Your task to perform on an android device: turn off picture-in-picture Image 0: 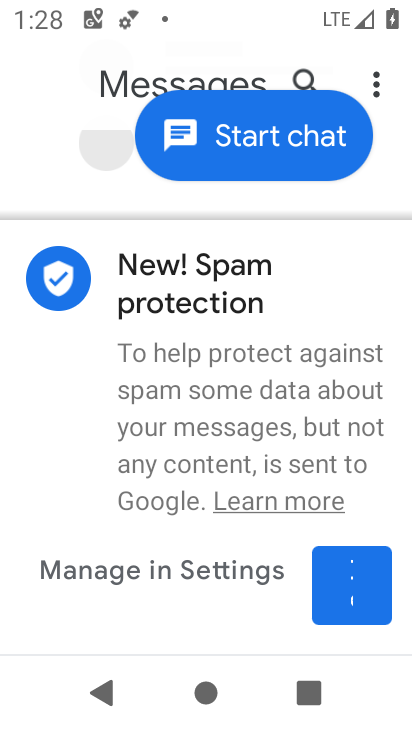
Step 0: press home button
Your task to perform on an android device: turn off picture-in-picture Image 1: 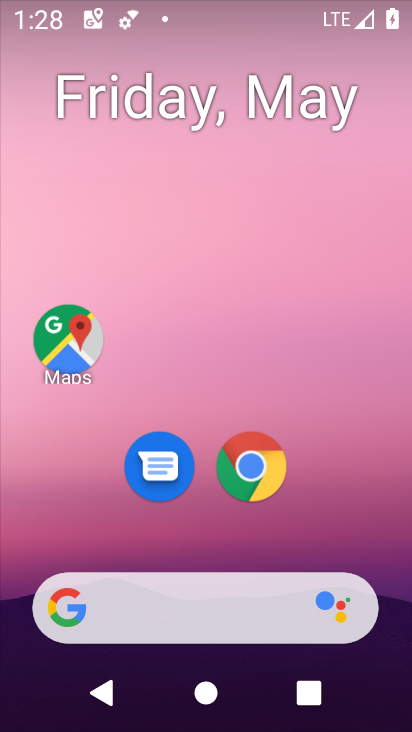
Step 1: drag from (316, 510) to (385, 0)
Your task to perform on an android device: turn off picture-in-picture Image 2: 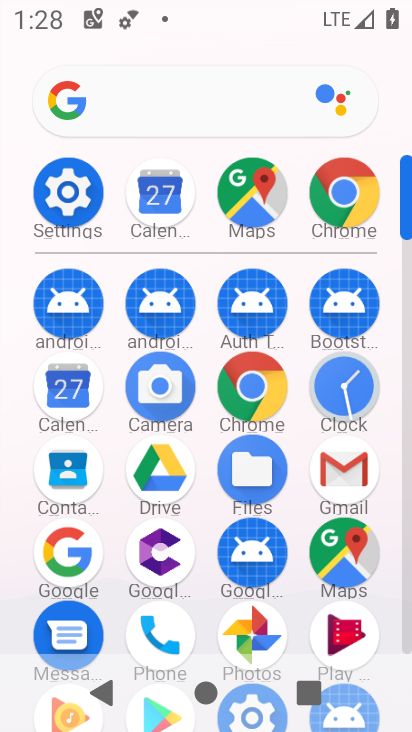
Step 2: click (343, 200)
Your task to perform on an android device: turn off picture-in-picture Image 3: 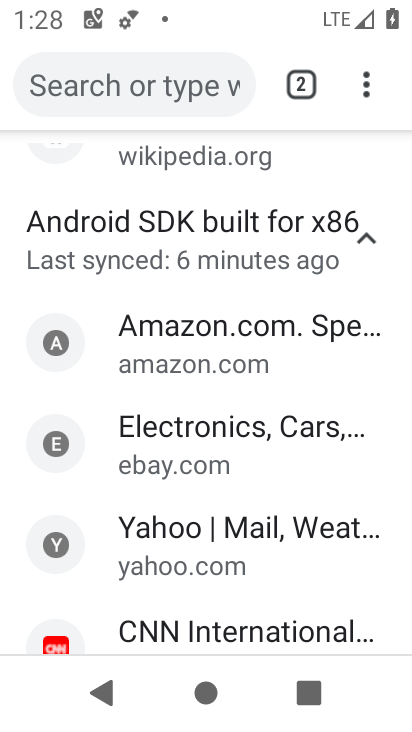
Step 3: press home button
Your task to perform on an android device: turn off picture-in-picture Image 4: 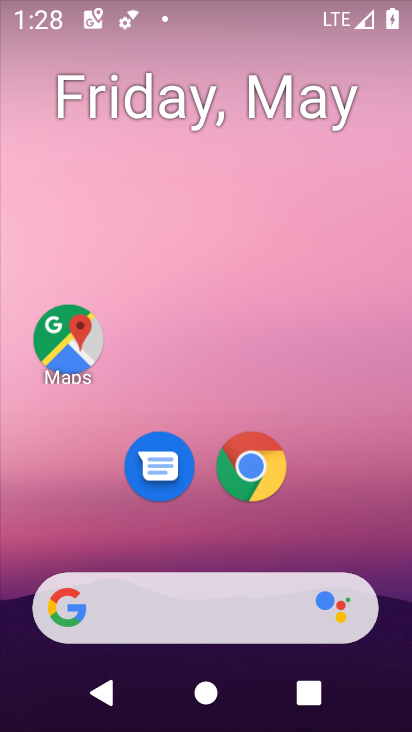
Step 4: click (249, 459)
Your task to perform on an android device: turn off picture-in-picture Image 5: 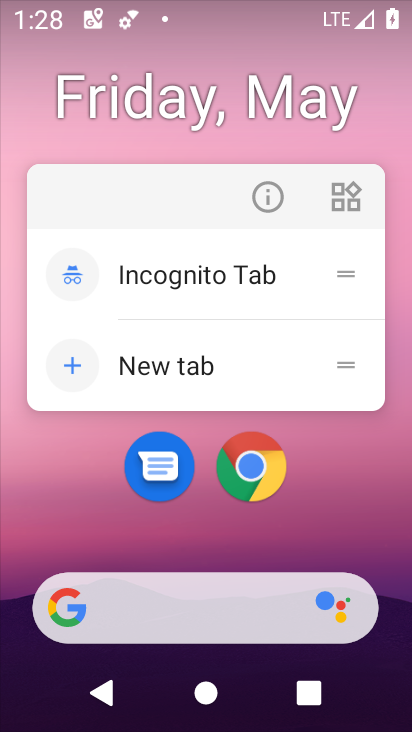
Step 5: click (271, 197)
Your task to perform on an android device: turn off picture-in-picture Image 6: 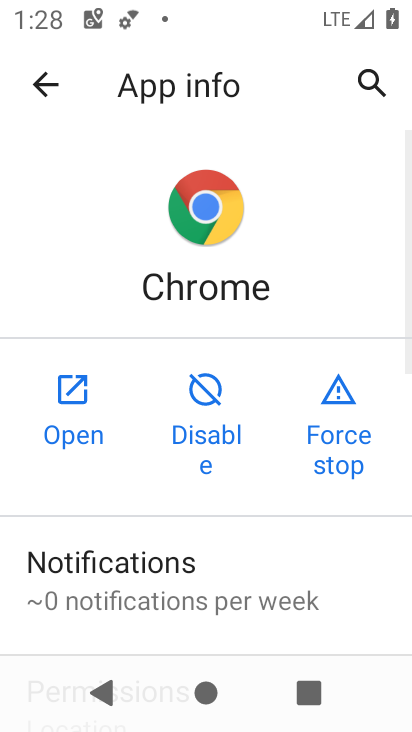
Step 6: drag from (261, 560) to (353, 101)
Your task to perform on an android device: turn off picture-in-picture Image 7: 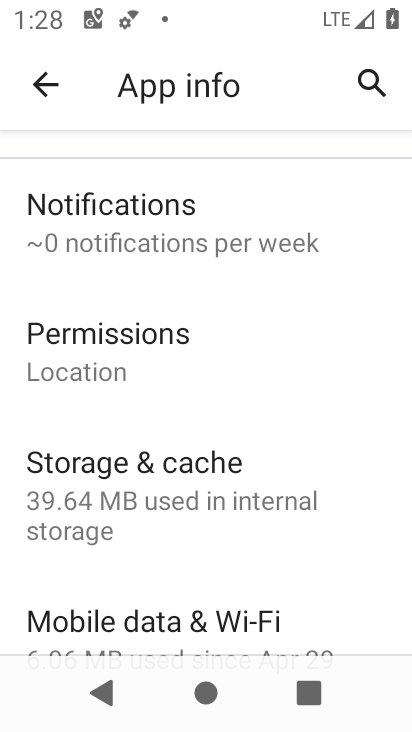
Step 7: drag from (245, 558) to (291, 113)
Your task to perform on an android device: turn off picture-in-picture Image 8: 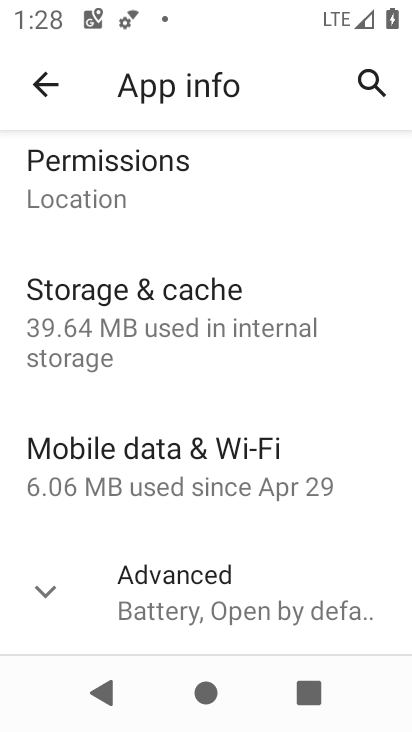
Step 8: click (179, 588)
Your task to perform on an android device: turn off picture-in-picture Image 9: 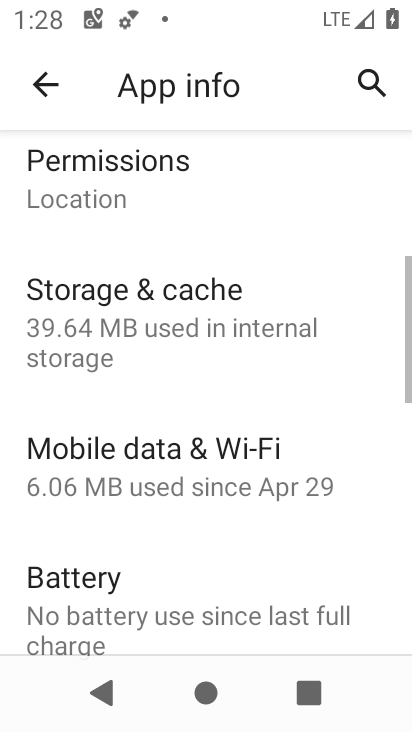
Step 9: drag from (172, 581) to (227, 157)
Your task to perform on an android device: turn off picture-in-picture Image 10: 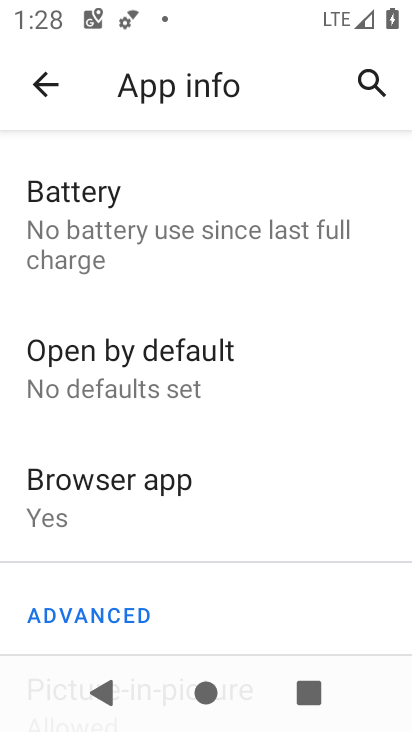
Step 10: drag from (247, 511) to (245, 72)
Your task to perform on an android device: turn off picture-in-picture Image 11: 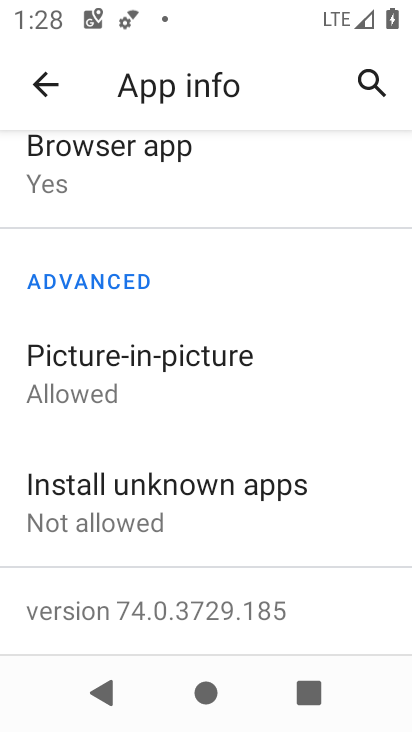
Step 11: click (84, 385)
Your task to perform on an android device: turn off picture-in-picture Image 12: 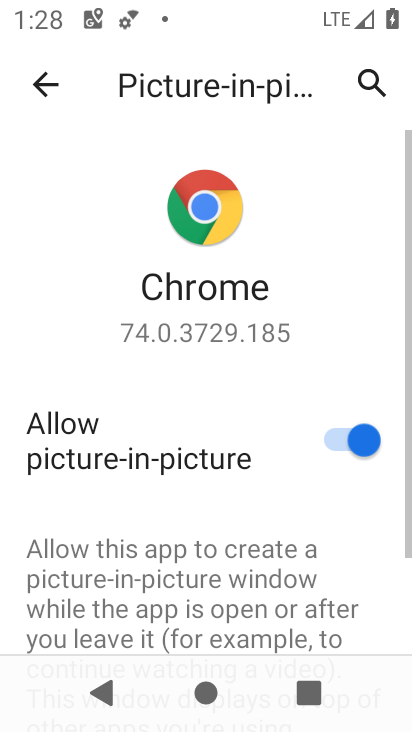
Step 12: drag from (176, 567) to (258, 144)
Your task to perform on an android device: turn off picture-in-picture Image 13: 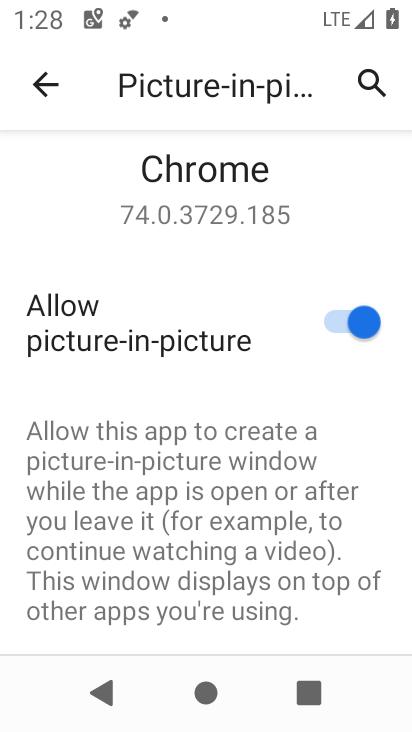
Step 13: click (349, 318)
Your task to perform on an android device: turn off picture-in-picture Image 14: 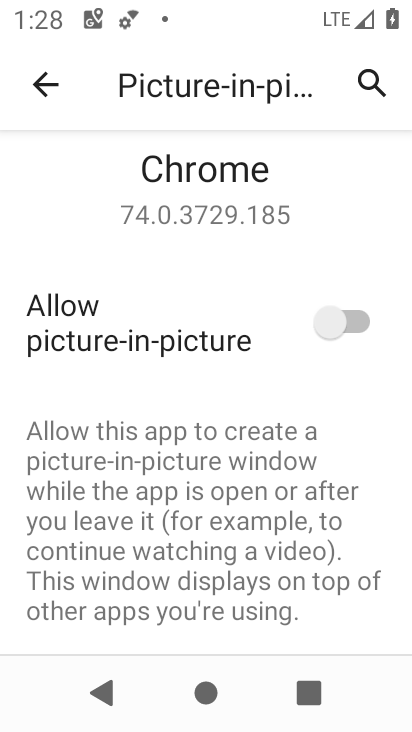
Step 14: task complete